Your task to perform on an android device: Go to privacy settings Image 0: 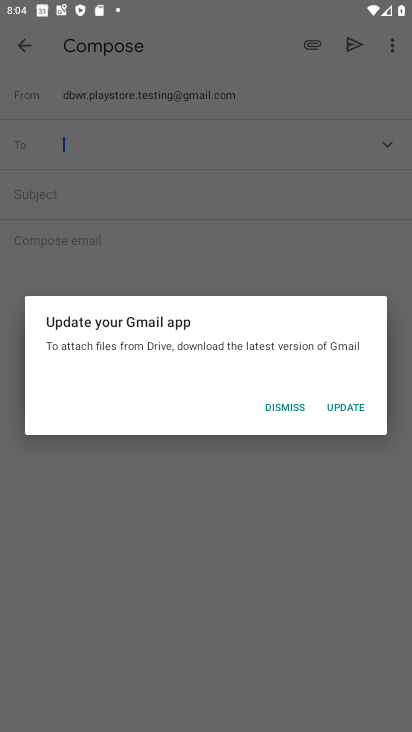
Step 0: press home button
Your task to perform on an android device: Go to privacy settings Image 1: 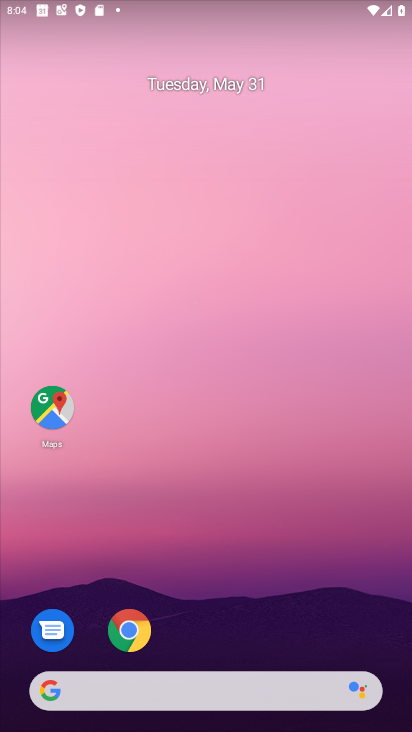
Step 1: drag from (175, 629) to (208, 172)
Your task to perform on an android device: Go to privacy settings Image 2: 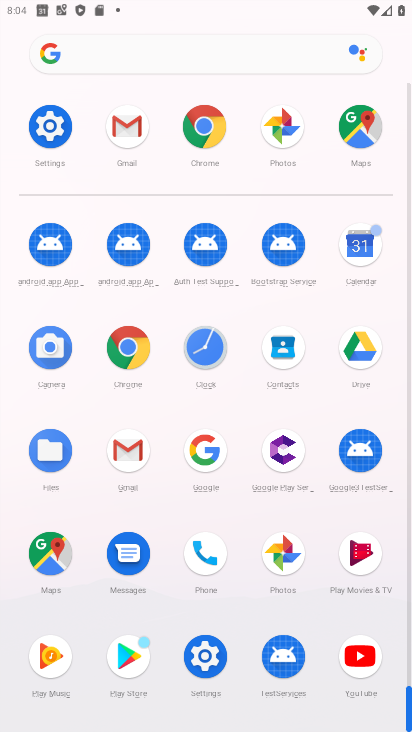
Step 2: click (36, 116)
Your task to perform on an android device: Go to privacy settings Image 3: 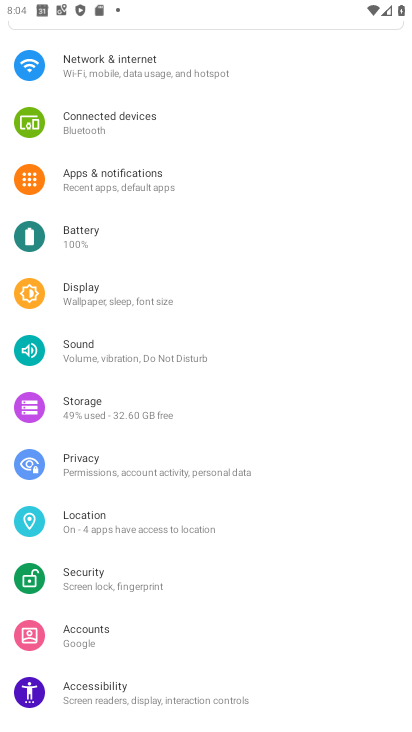
Step 3: click (108, 466)
Your task to perform on an android device: Go to privacy settings Image 4: 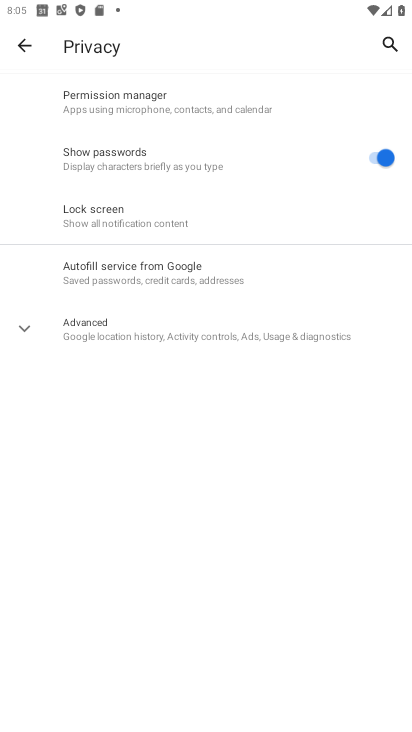
Step 4: task complete